Your task to perform on an android device: Open privacy settings Image 0: 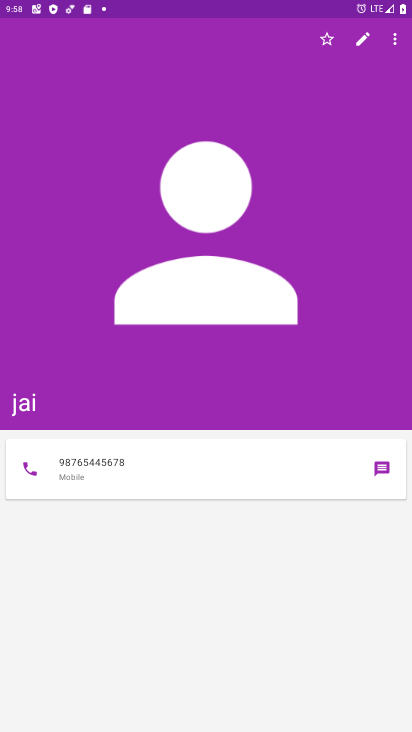
Step 0: press home button
Your task to perform on an android device: Open privacy settings Image 1: 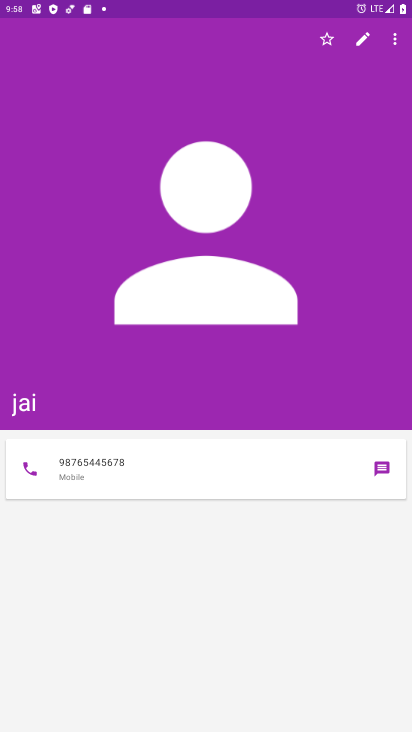
Step 1: press home button
Your task to perform on an android device: Open privacy settings Image 2: 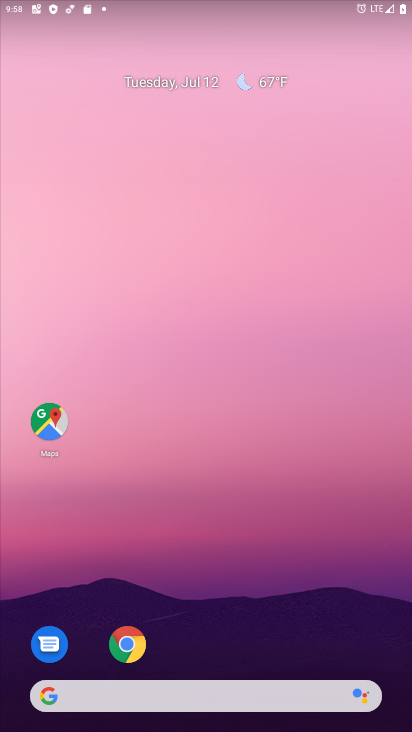
Step 2: drag from (220, 615) to (310, 101)
Your task to perform on an android device: Open privacy settings Image 3: 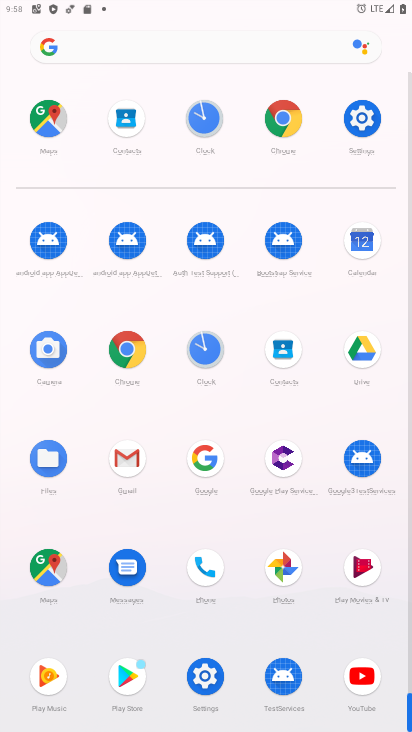
Step 3: click (348, 114)
Your task to perform on an android device: Open privacy settings Image 4: 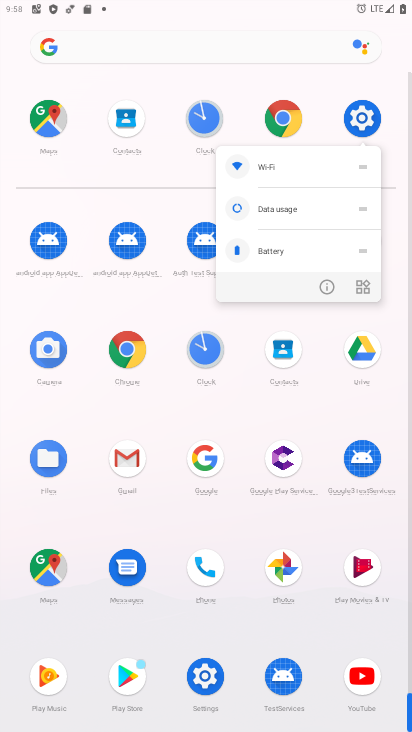
Step 4: click (344, 280)
Your task to perform on an android device: Open privacy settings Image 5: 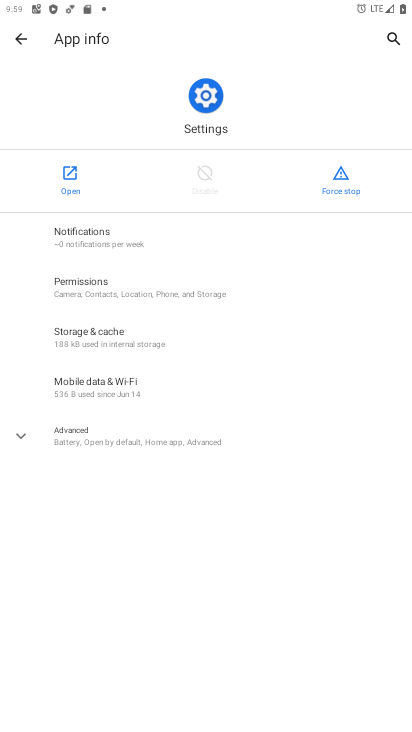
Step 5: click (72, 175)
Your task to perform on an android device: Open privacy settings Image 6: 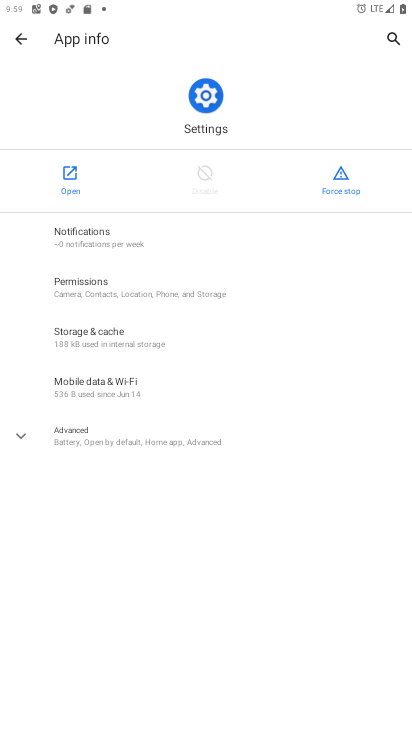
Step 6: click (72, 175)
Your task to perform on an android device: Open privacy settings Image 7: 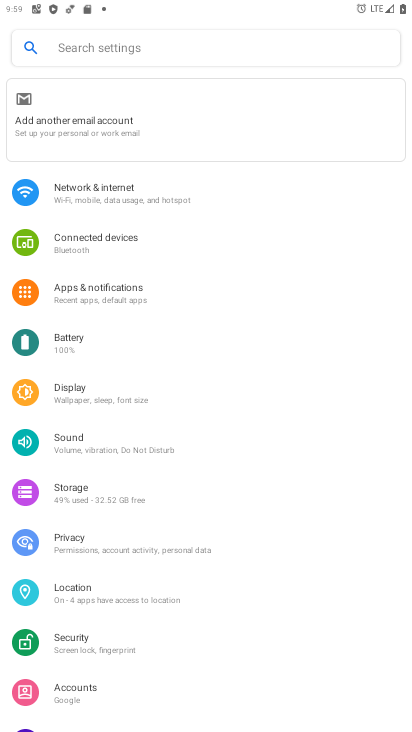
Step 7: click (87, 557)
Your task to perform on an android device: Open privacy settings Image 8: 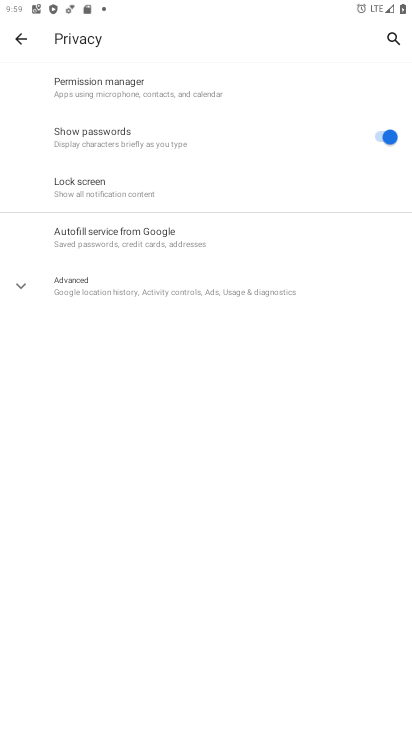
Step 8: task complete